Your task to perform on an android device: Go to notification settings Image 0: 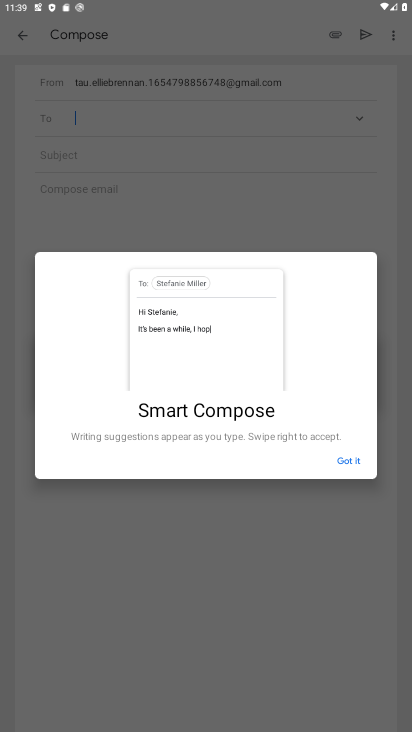
Step 0: press home button
Your task to perform on an android device: Go to notification settings Image 1: 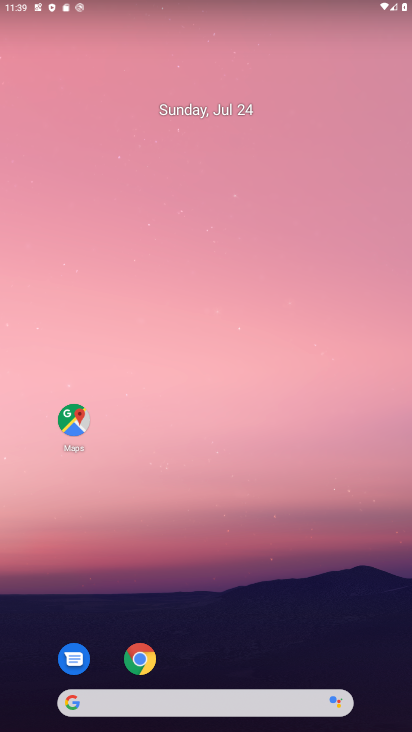
Step 1: drag from (31, 699) to (402, 74)
Your task to perform on an android device: Go to notification settings Image 2: 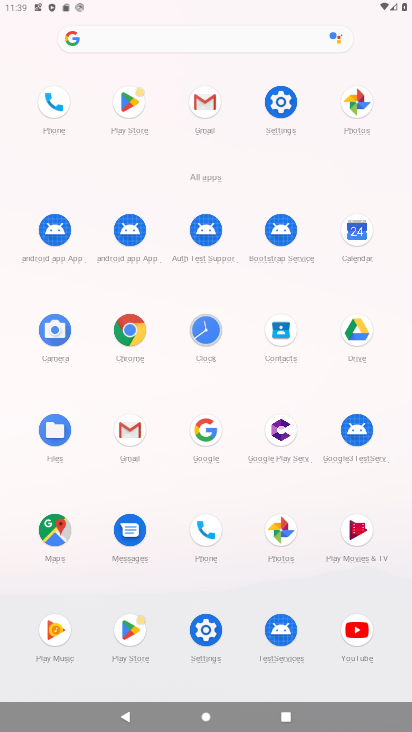
Step 2: click (205, 647)
Your task to perform on an android device: Go to notification settings Image 3: 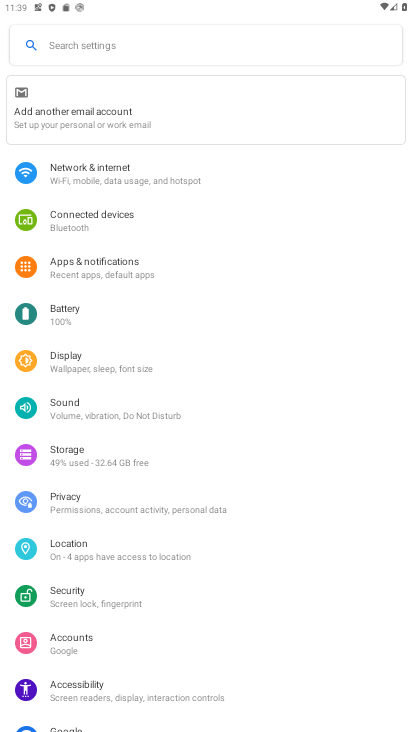
Step 3: click (110, 259)
Your task to perform on an android device: Go to notification settings Image 4: 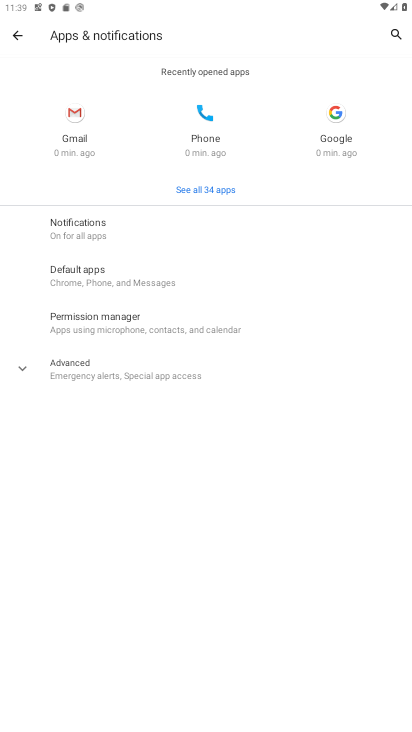
Step 4: click (94, 363)
Your task to perform on an android device: Go to notification settings Image 5: 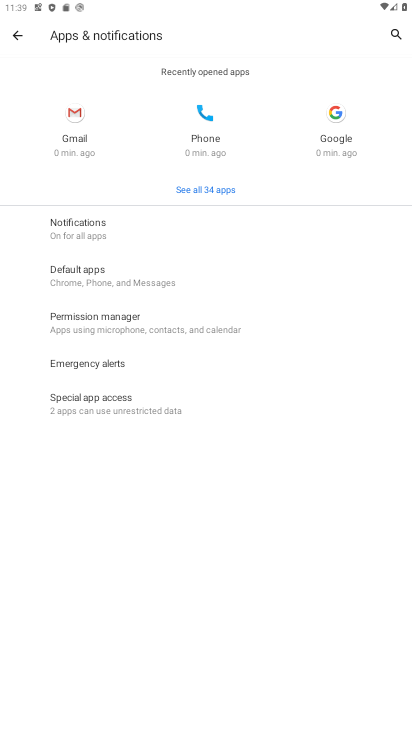
Step 5: click (111, 272)
Your task to perform on an android device: Go to notification settings Image 6: 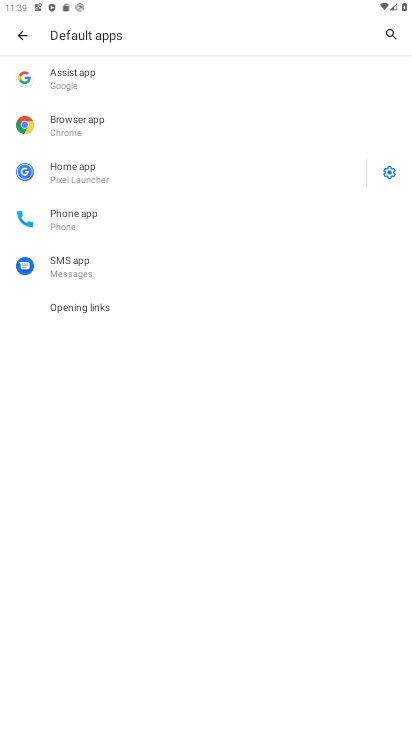
Step 6: task complete